Your task to perform on an android device: open app "Booking.com: Hotels and more" Image 0: 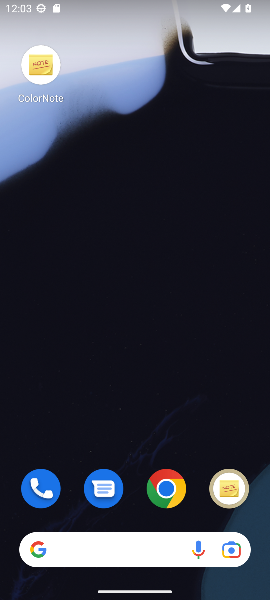
Step 0: drag from (123, 246) to (125, 204)
Your task to perform on an android device: open app "Booking.com: Hotels and more" Image 1: 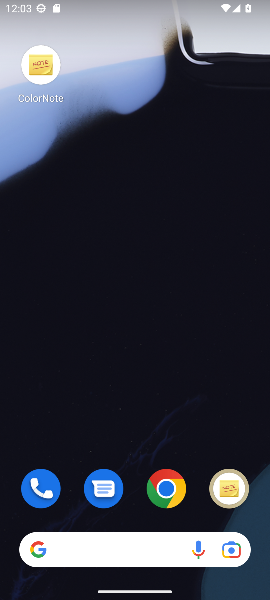
Step 1: drag from (129, 516) to (126, 105)
Your task to perform on an android device: open app "Booking.com: Hotels and more" Image 2: 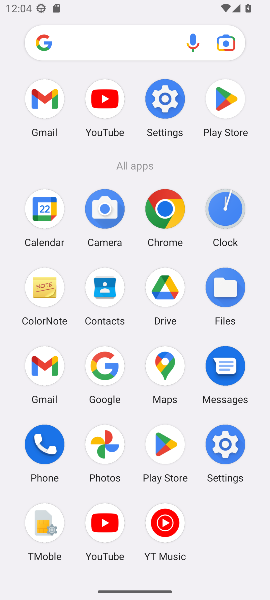
Step 2: click (224, 112)
Your task to perform on an android device: open app "Booking.com: Hotels and more" Image 3: 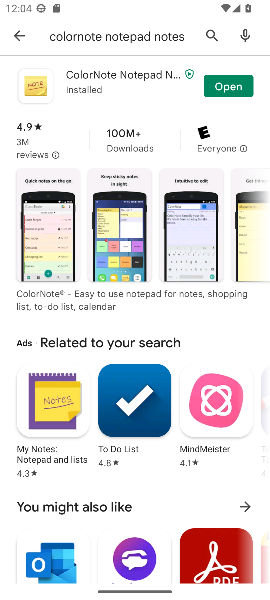
Step 3: click (17, 36)
Your task to perform on an android device: open app "Booking.com: Hotels and more" Image 4: 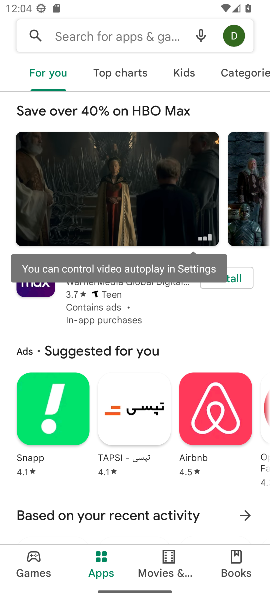
Step 4: type "Booking.com: Hotels and more"
Your task to perform on an android device: open app "Booking.com: Hotels and more" Image 5: 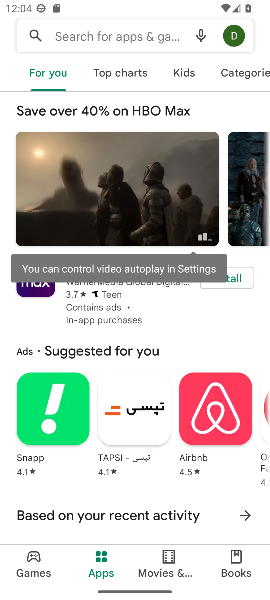
Step 5: click (83, 33)
Your task to perform on an android device: open app "Booking.com: Hotels and more" Image 6: 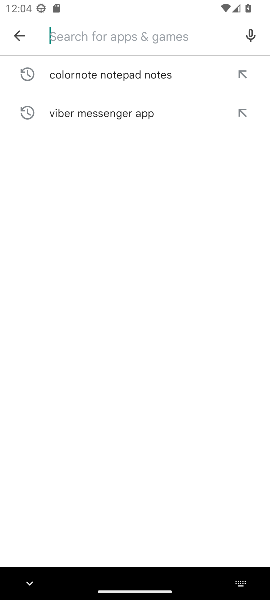
Step 6: type "Booking.com: Hotels and more"
Your task to perform on an android device: open app "Booking.com: Hotels and more" Image 7: 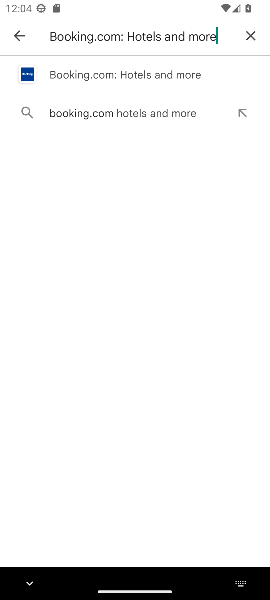
Step 7: click (97, 68)
Your task to perform on an android device: open app "Booking.com: Hotels and more" Image 8: 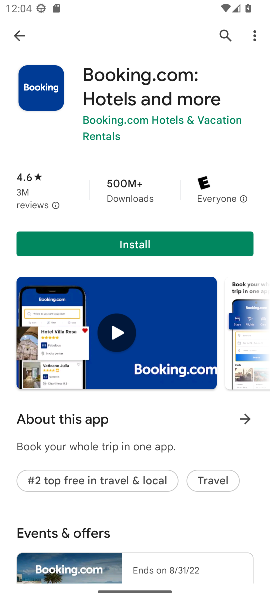
Step 8: click (135, 241)
Your task to perform on an android device: open app "Booking.com: Hotels and more" Image 9: 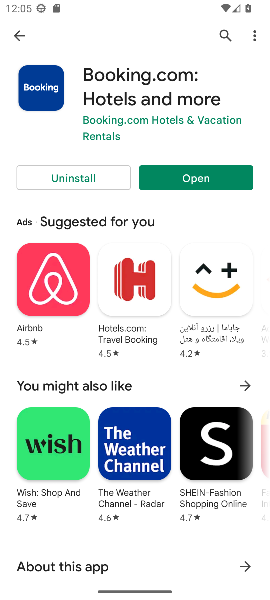
Step 9: click (190, 179)
Your task to perform on an android device: open app "Booking.com: Hotels and more" Image 10: 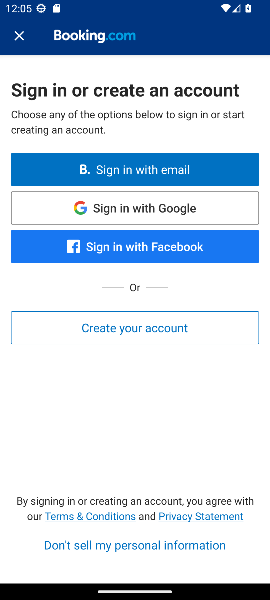
Step 10: task complete